Your task to perform on an android device: Turn on the flashlight Image 0: 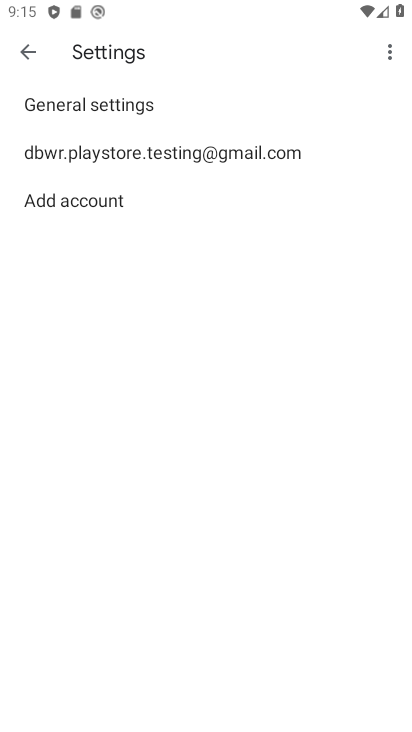
Step 0: press home button
Your task to perform on an android device: Turn on the flashlight Image 1: 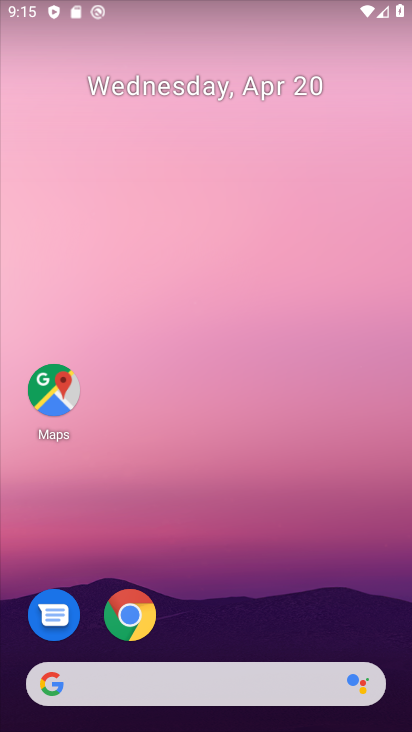
Step 1: drag from (232, 504) to (248, 98)
Your task to perform on an android device: Turn on the flashlight Image 2: 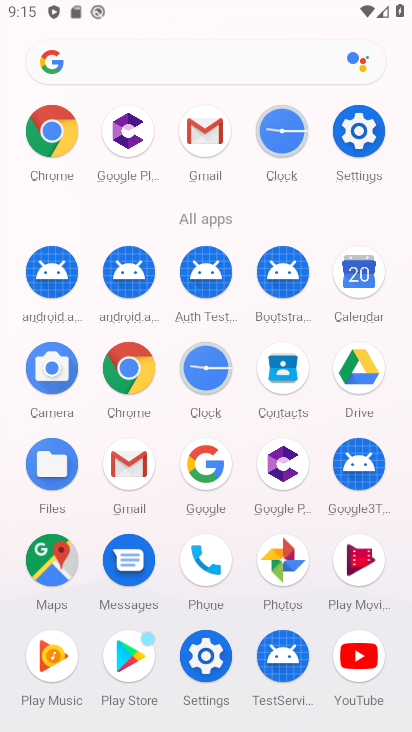
Step 2: click (362, 137)
Your task to perform on an android device: Turn on the flashlight Image 3: 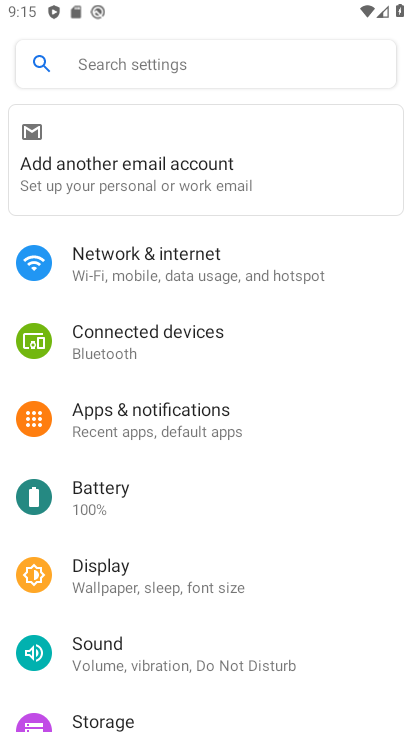
Step 3: click (143, 408)
Your task to perform on an android device: Turn on the flashlight Image 4: 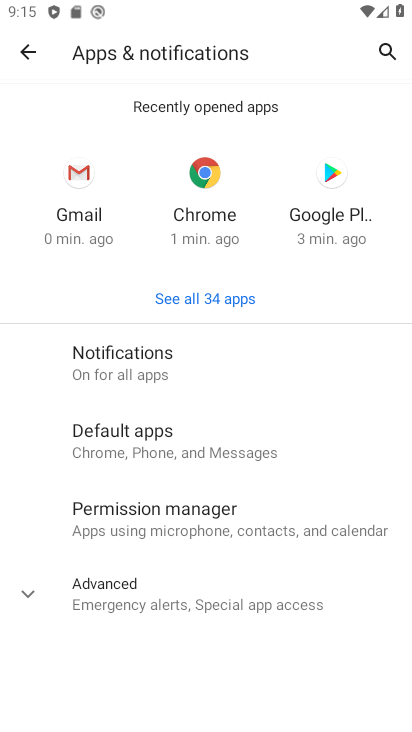
Step 4: task complete